Your task to perform on an android device: empty trash in google photos Image 0: 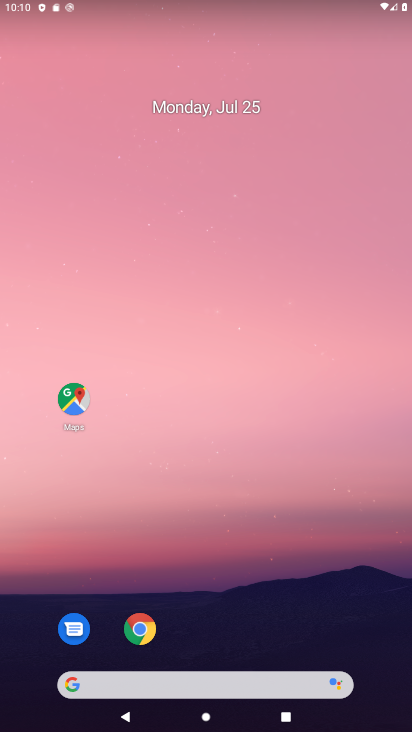
Step 0: drag from (233, 665) to (243, 32)
Your task to perform on an android device: empty trash in google photos Image 1: 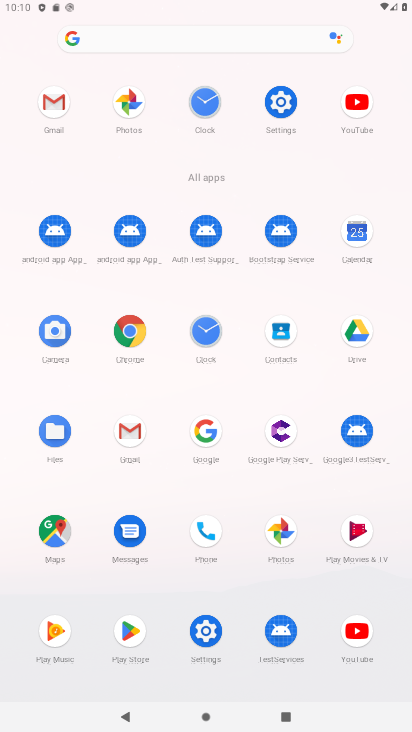
Step 1: click (125, 96)
Your task to perform on an android device: empty trash in google photos Image 2: 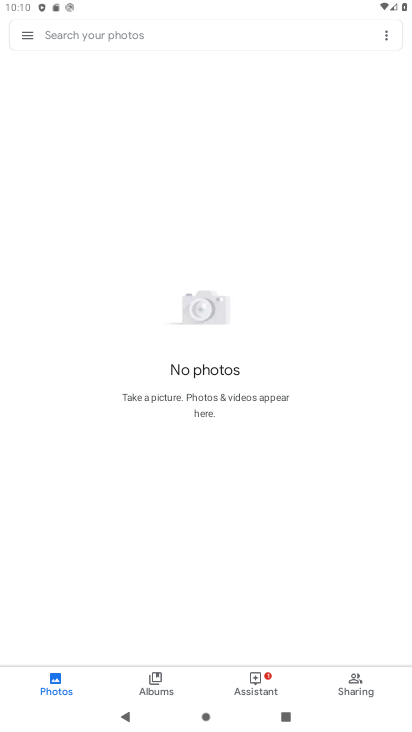
Step 2: click (27, 36)
Your task to perform on an android device: empty trash in google photos Image 3: 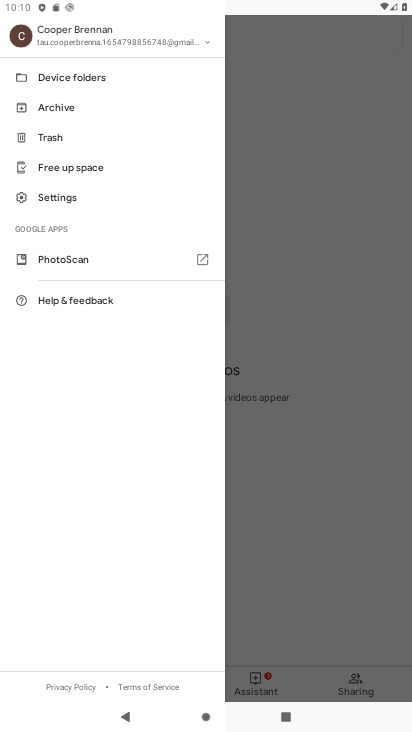
Step 3: click (42, 138)
Your task to perform on an android device: empty trash in google photos Image 4: 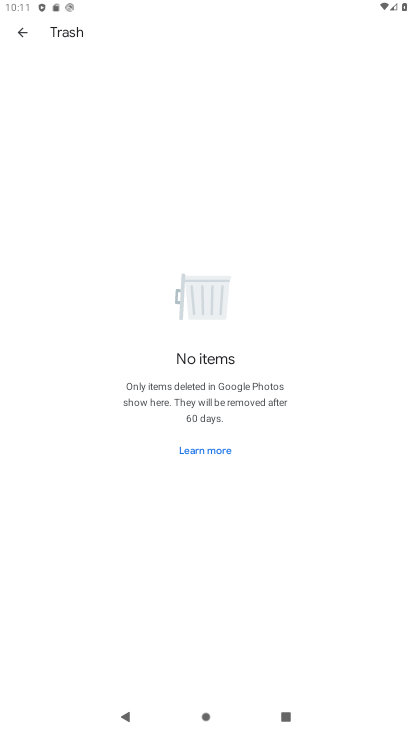
Step 4: task complete